Your task to perform on an android device: open a new tab in the chrome app Image 0: 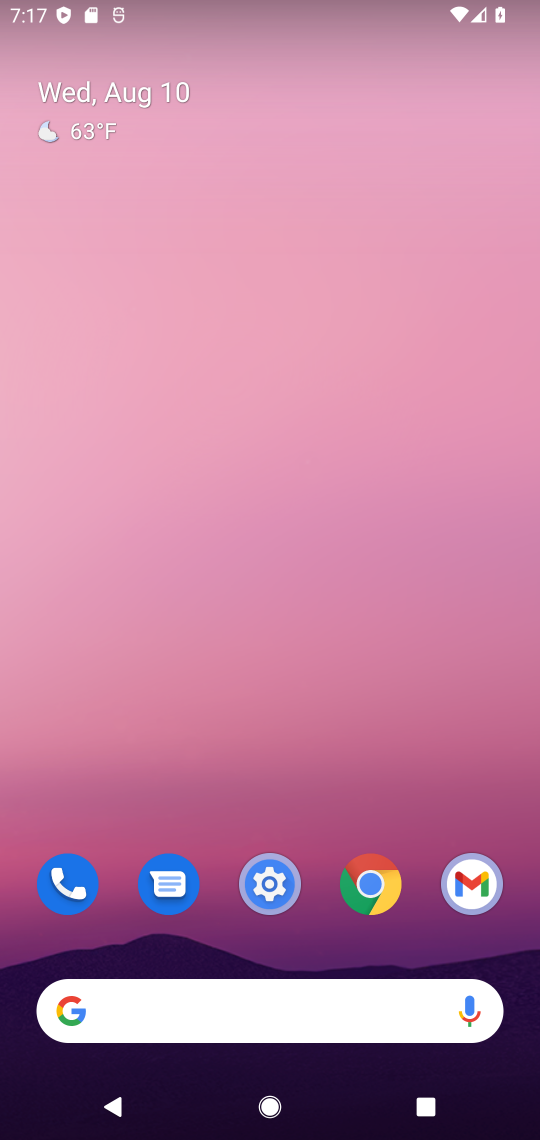
Step 0: click (371, 882)
Your task to perform on an android device: open a new tab in the chrome app Image 1: 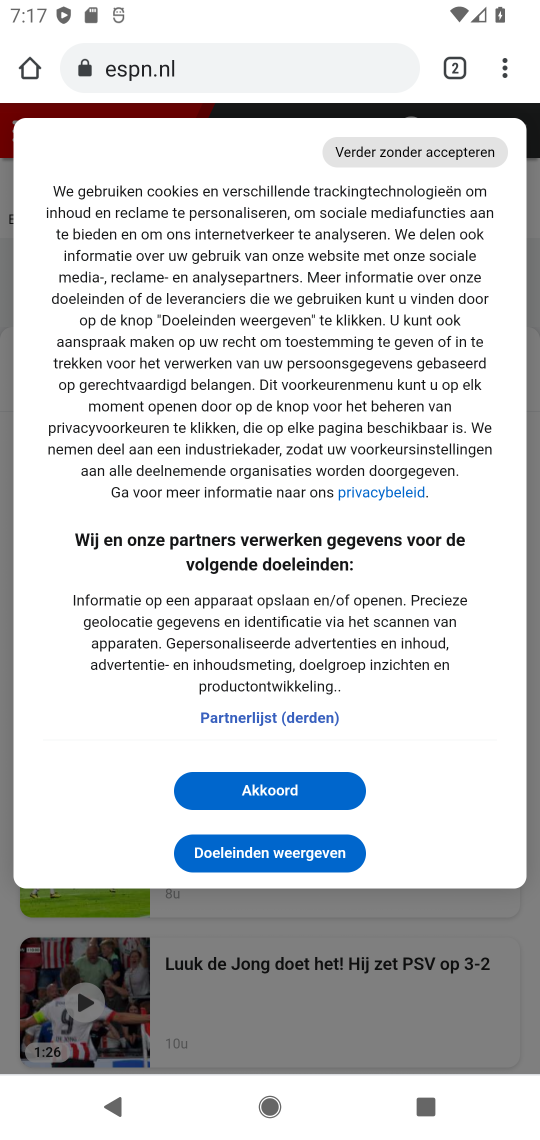
Step 1: click (509, 78)
Your task to perform on an android device: open a new tab in the chrome app Image 2: 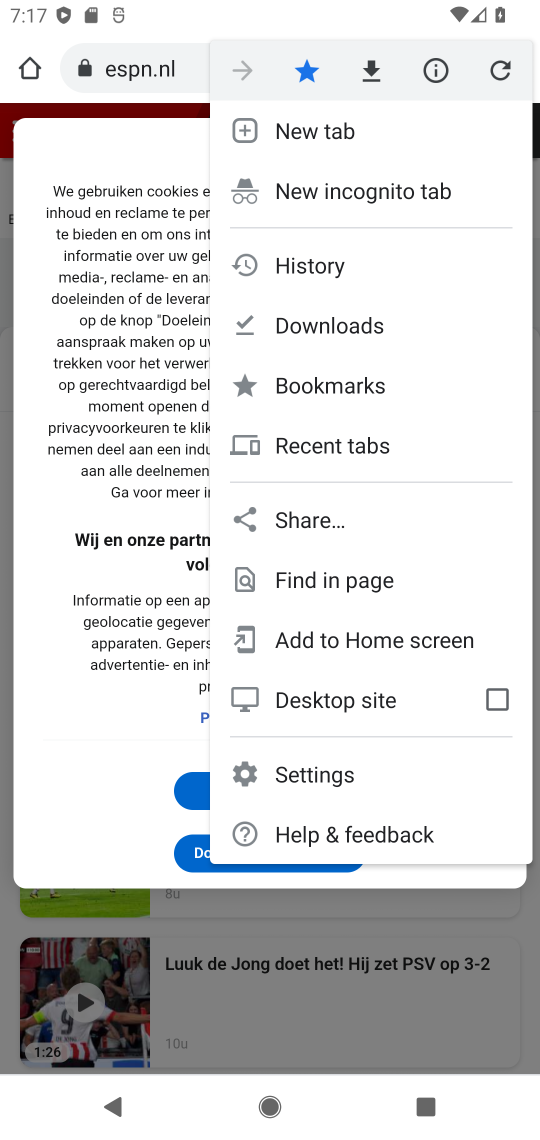
Step 2: click (310, 127)
Your task to perform on an android device: open a new tab in the chrome app Image 3: 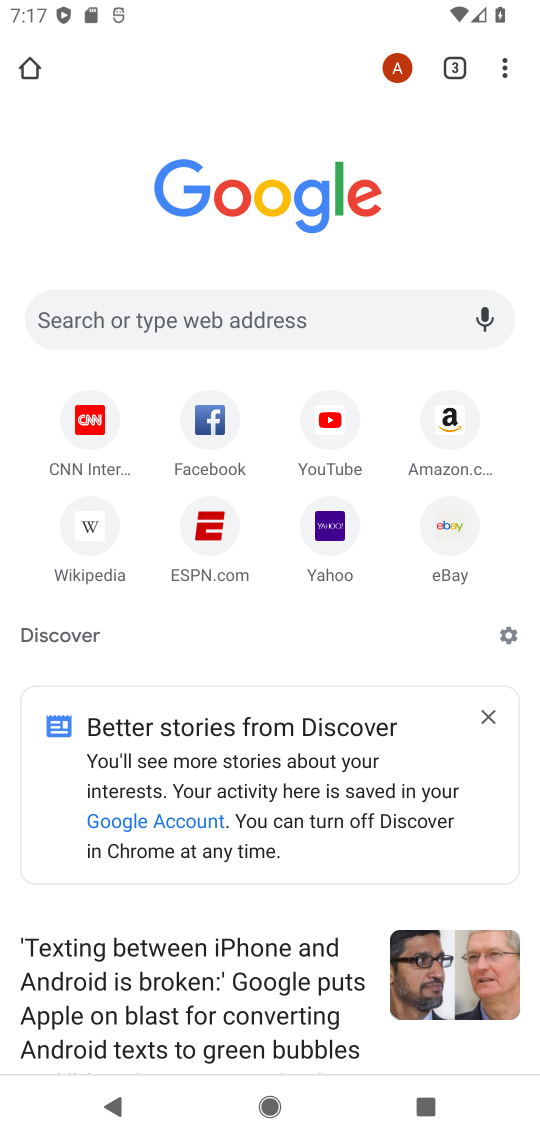
Step 3: task complete